Your task to perform on an android device: Go to Google maps Image 0: 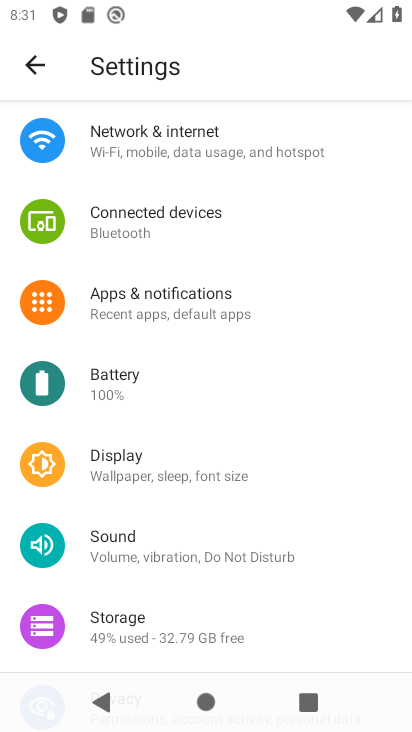
Step 0: press home button
Your task to perform on an android device: Go to Google maps Image 1: 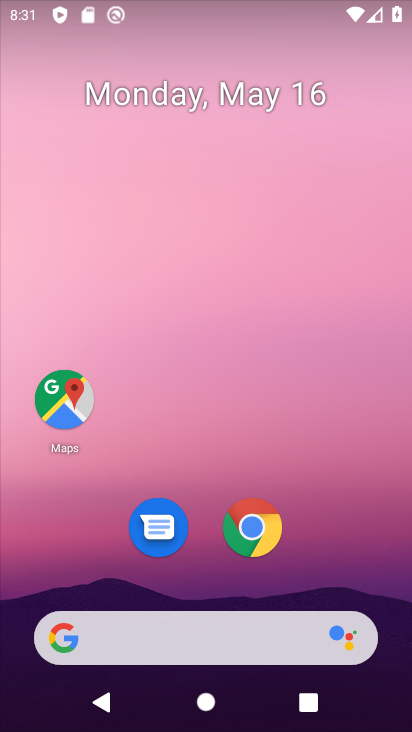
Step 1: click (76, 414)
Your task to perform on an android device: Go to Google maps Image 2: 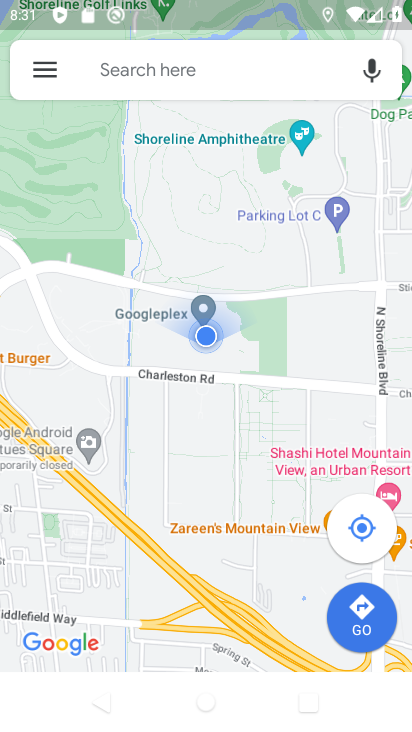
Step 2: task complete